Your task to perform on an android device: What's the weather? Image 0: 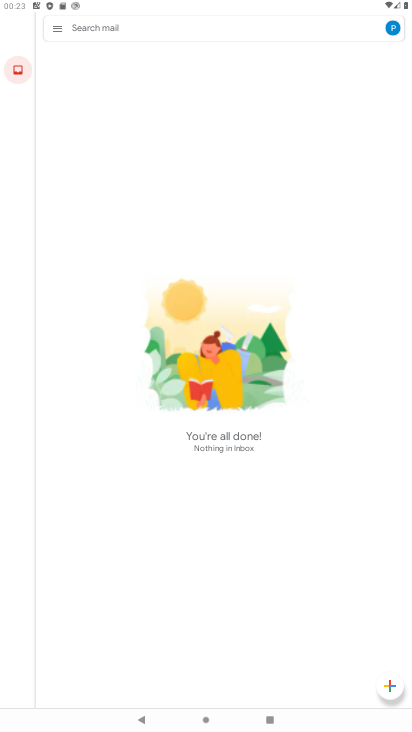
Step 0: press home button
Your task to perform on an android device: What's the weather? Image 1: 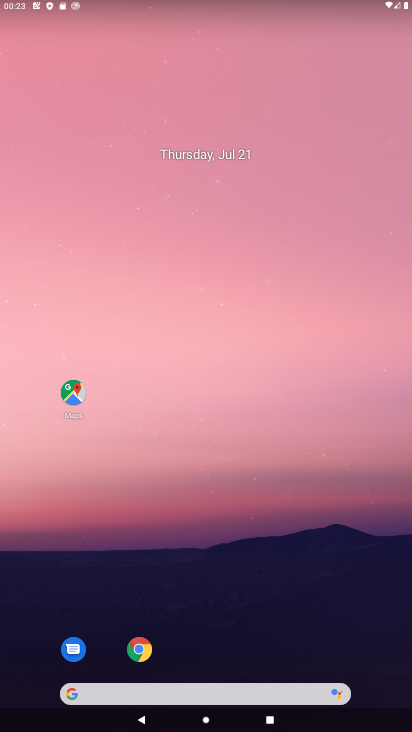
Step 1: drag from (218, 720) to (187, 176)
Your task to perform on an android device: What's the weather? Image 2: 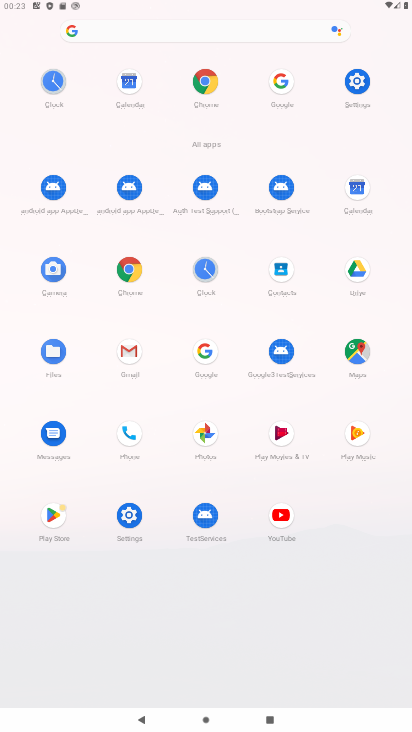
Step 2: click (200, 352)
Your task to perform on an android device: What's the weather? Image 3: 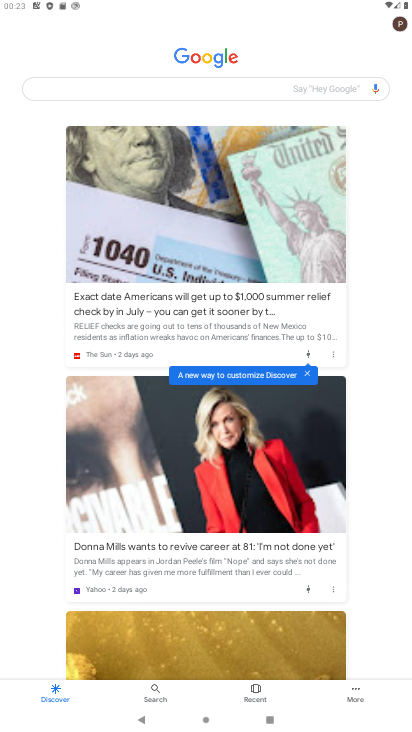
Step 3: click (180, 90)
Your task to perform on an android device: What's the weather? Image 4: 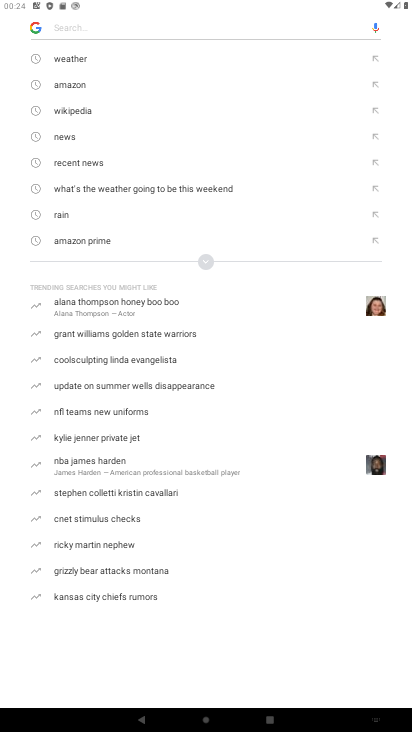
Step 4: click (70, 60)
Your task to perform on an android device: What's the weather? Image 5: 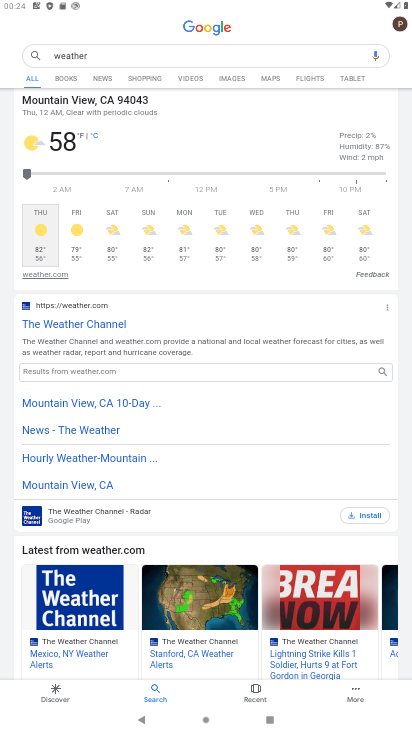
Step 5: task complete